Your task to perform on an android device: Search for seafood restaurants on Google Maps Image 0: 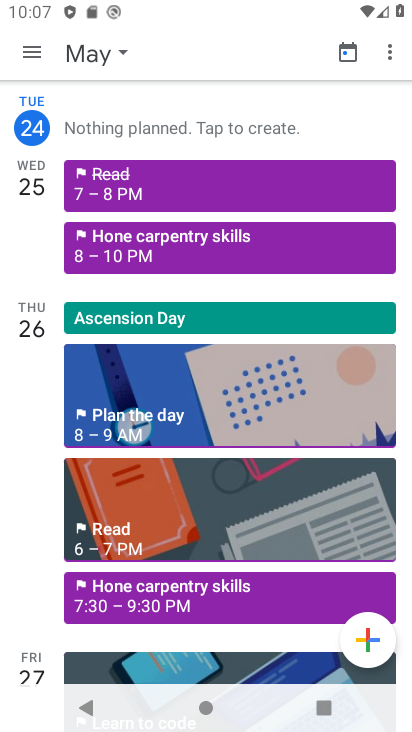
Step 0: press home button
Your task to perform on an android device: Search for seafood restaurants on Google Maps Image 1: 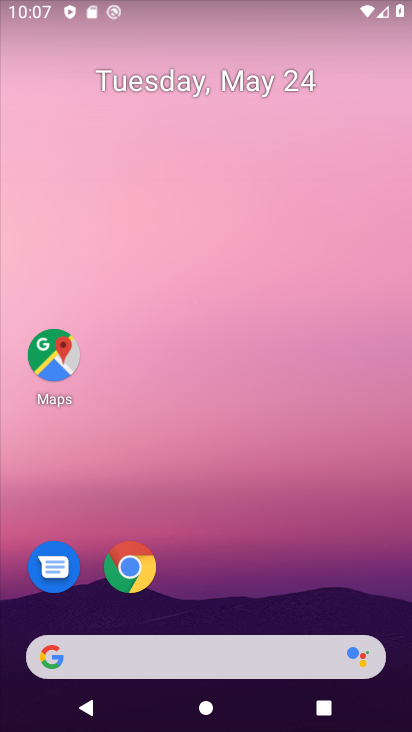
Step 1: click (54, 362)
Your task to perform on an android device: Search for seafood restaurants on Google Maps Image 2: 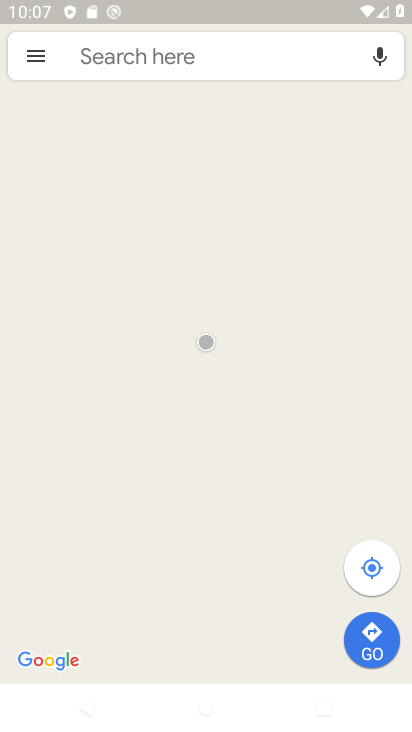
Step 2: click (159, 61)
Your task to perform on an android device: Search for seafood restaurants on Google Maps Image 3: 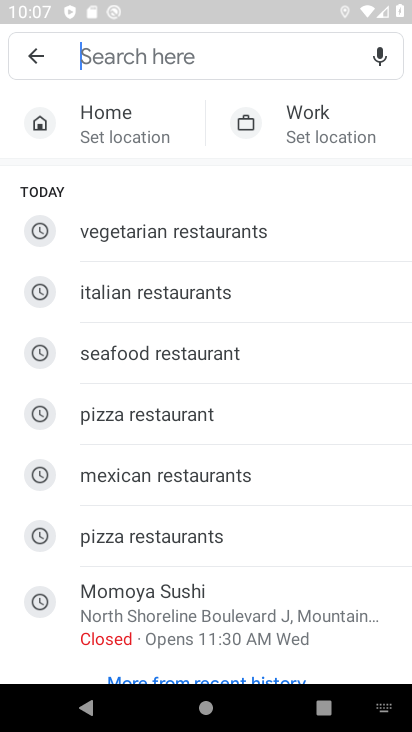
Step 3: click (127, 50)
Your task to perform on an android device: Search for seafood restaurants on Google Maps Image 4: 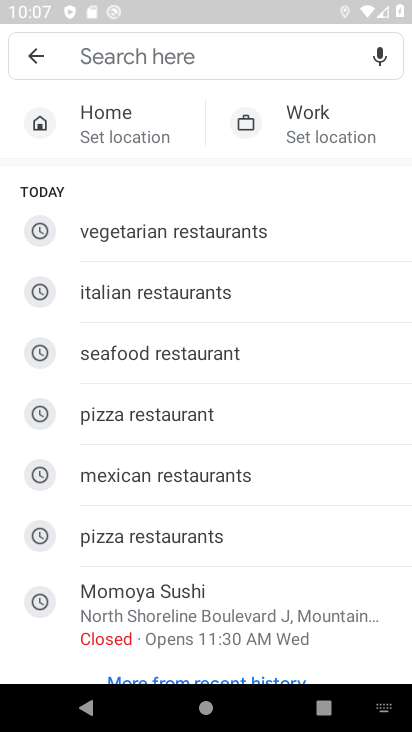
Step 4: click (126, 56)
Your task to perform on an android device: Search for seafood restaurants on Google Maps Image 5: 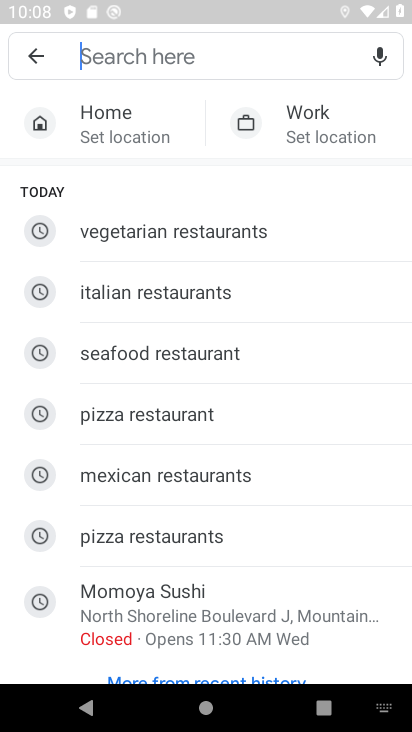
Step 5: type "seafood restaurants"
Your task to perform on an android device: Search for seafood restaurants on Google Maps Image 6: 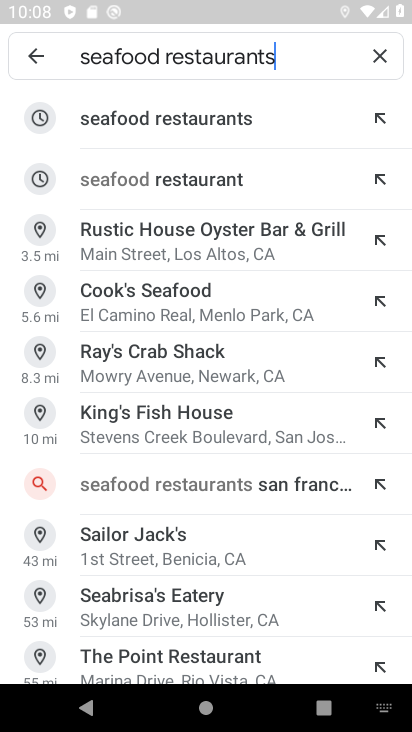
Step 6: click (182, 114)
Your task to perform on an android device: Search for seafood restaurants on Google Maps Image 7: 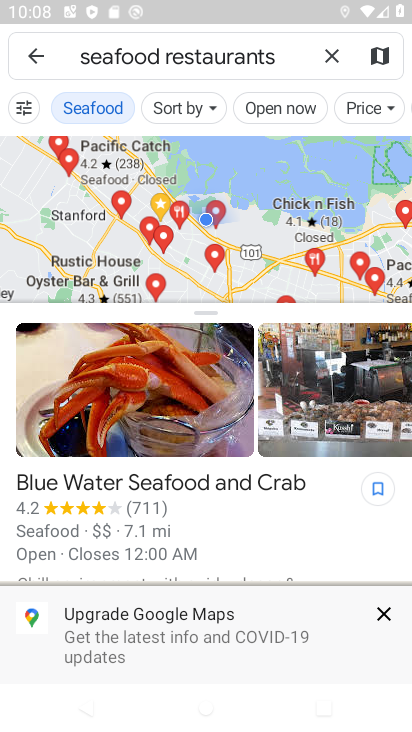
Step 7: task complete